Your task to perform on an android device: Go to calendar. Show me events next week Image 0: 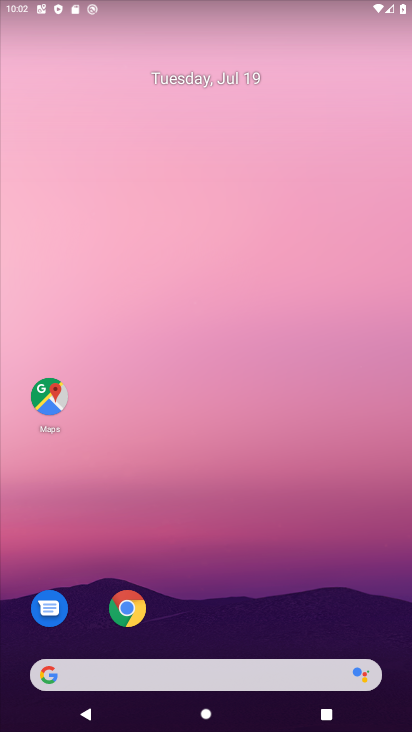
Step 0: drag from (201, 263) to (334, 20)
Your task to perform on an android device: Go to calendar. Show me events next week Image 1: 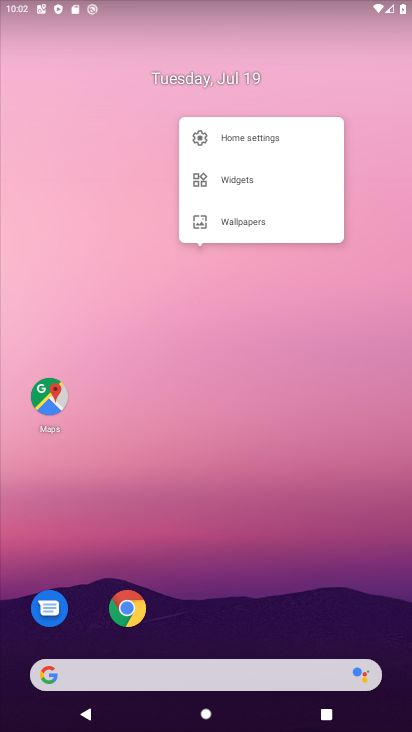
Step 1: click (217, 594)
Your task to perform on an android device: Go to calendar. Show me events next week Image 2: 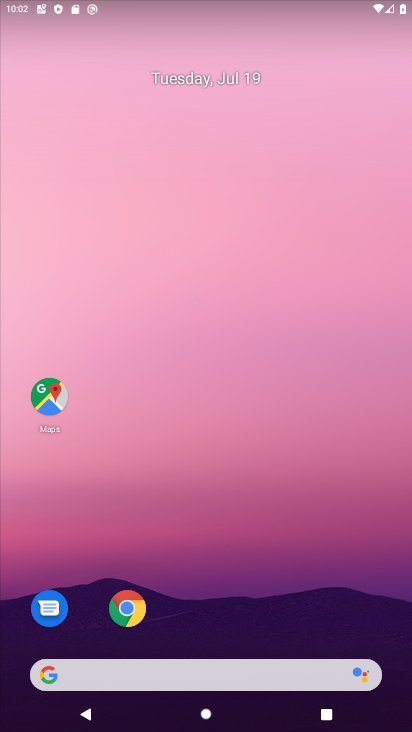
Step 2: drag from (228, 606) to (241, 73)
Your task to perform on an android device: Go to calendar. Show me events next week Image 3: 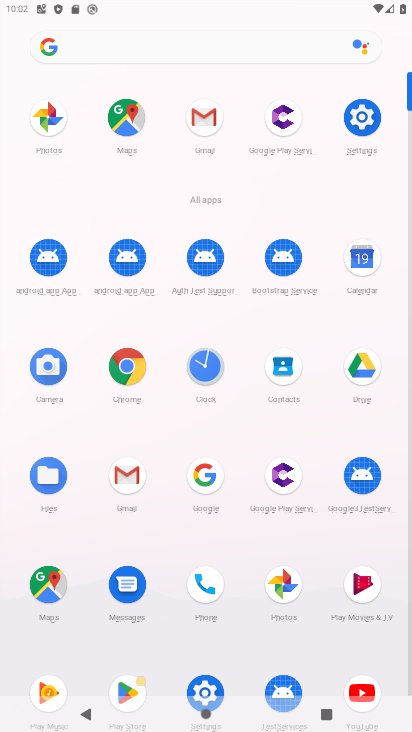
Step 3: click (368, 252)
Your task to perform on an android device: Go to calendar. Show me events next week Image 4: 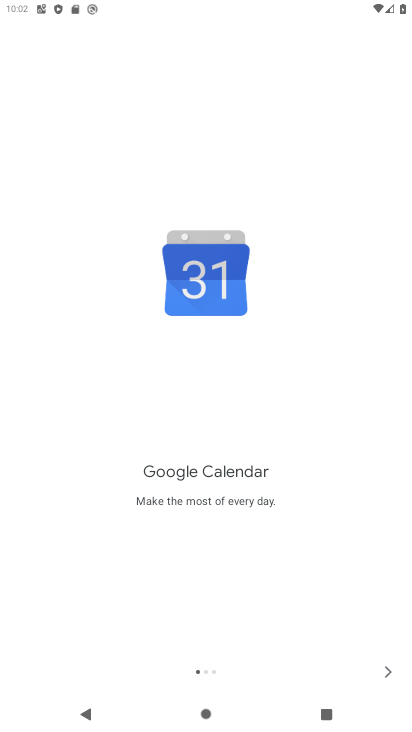
Step 4: click (389, 670)
Your task to perform on an android device: Go to calendar. Show me events next week Image 5: 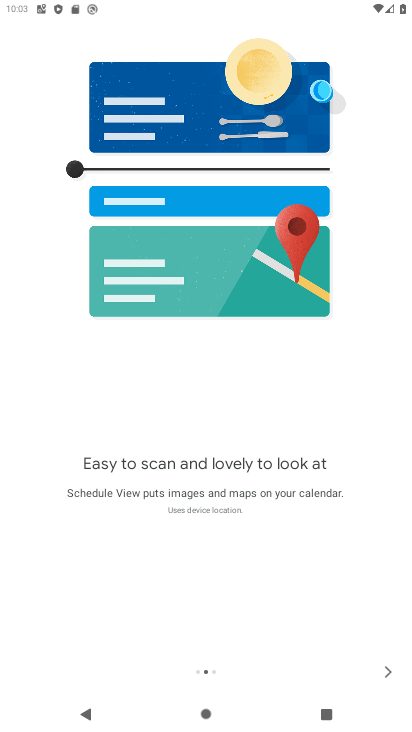
Step 5: click (389, 670)
Your task to perform on an android device: Go to calendar. Show me events next week Image 6: 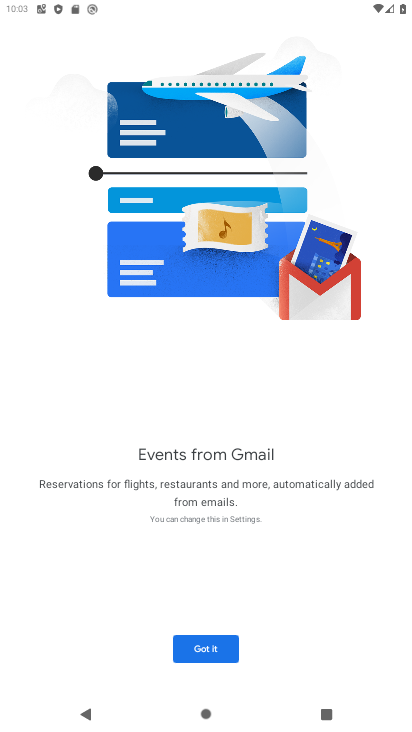
Step 6: click (221, 649)
Your task to perform on an android device: Go to calendar. Show me events next week Image 7: 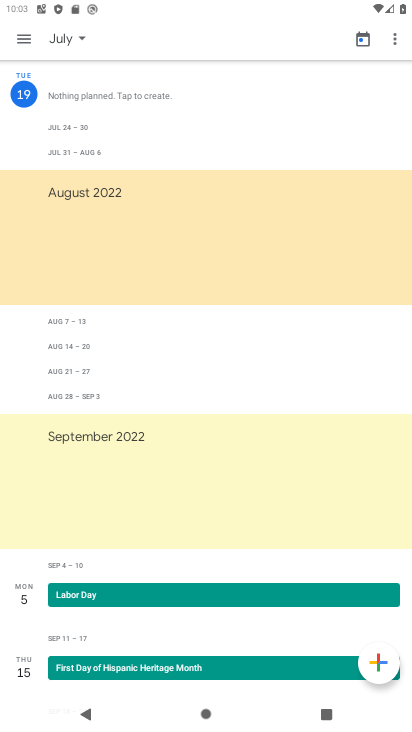
Step 7: click (20, 49)
Your task to perform on an android device: Go to calendar. Show me events next week Image 8: 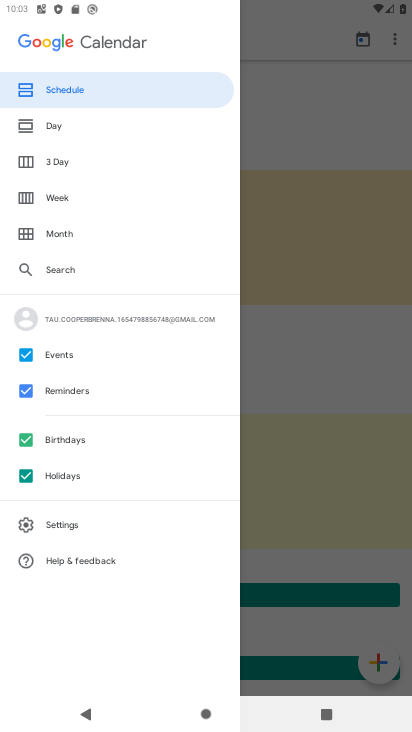
Step 8: click (52, 196)
Your task to perform on an android device: Go to calendar. Show me events next week Image 9: 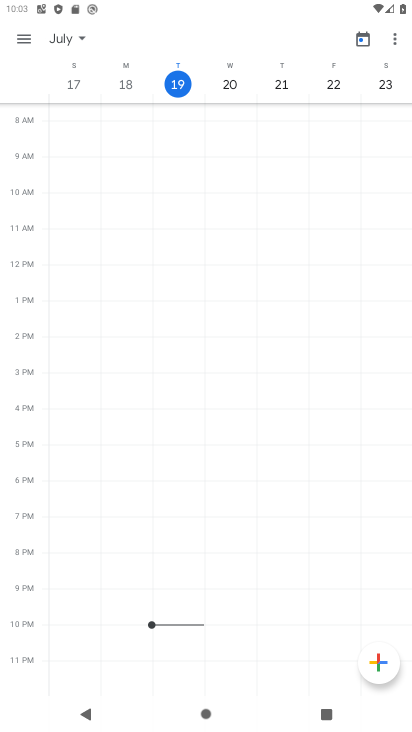
Step 9: task complete